Your task to perform on an android device: change notification settings in the gmail app Image 0: 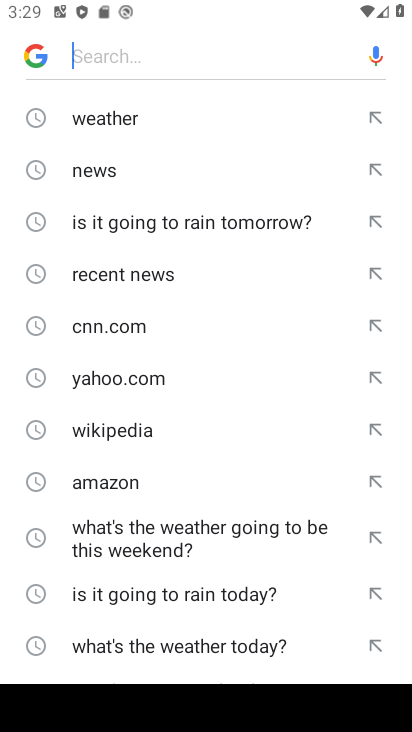
Step 0: press home button
Your task to perform on an android device: change notification settings in the gmail app Image 1: 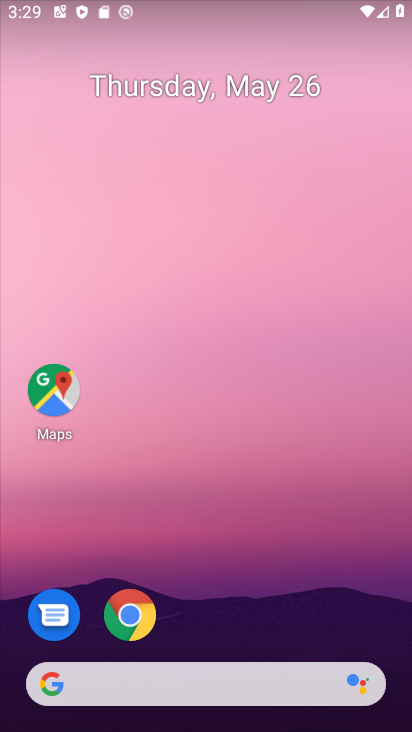
Step 1: drag from (304, 613) to (246, 94)
Your task to perform on an android device: change notification settings in the gmail app Image 2: 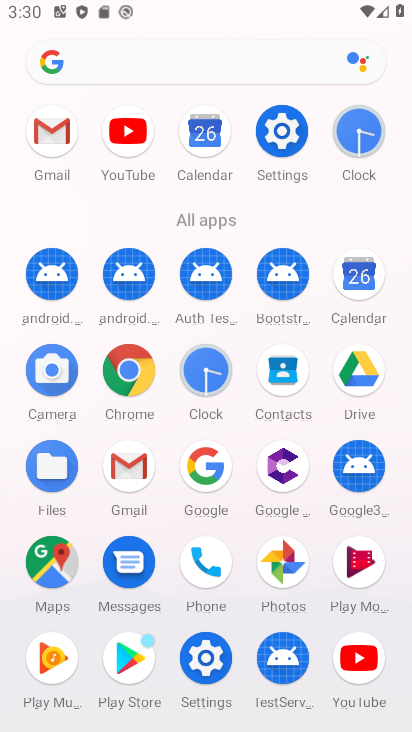
Step 2: click (129, 469)
Your task to perform on an android device: change notification settings in the gmail app Image 3: 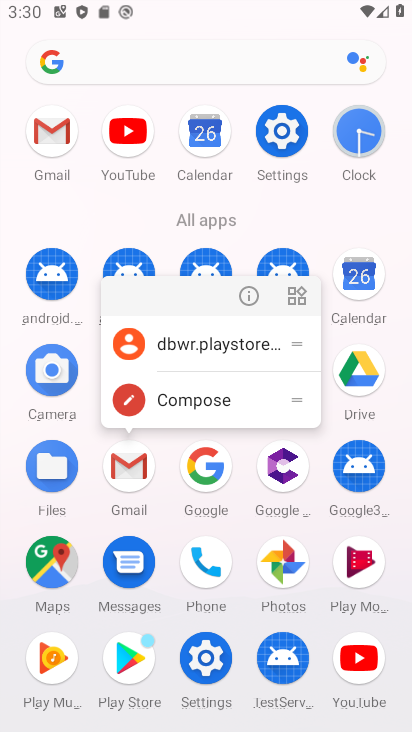
Step 3: click (246, 292)
Your task to perform on an android device: change notification settings in the gmail app Image 4: 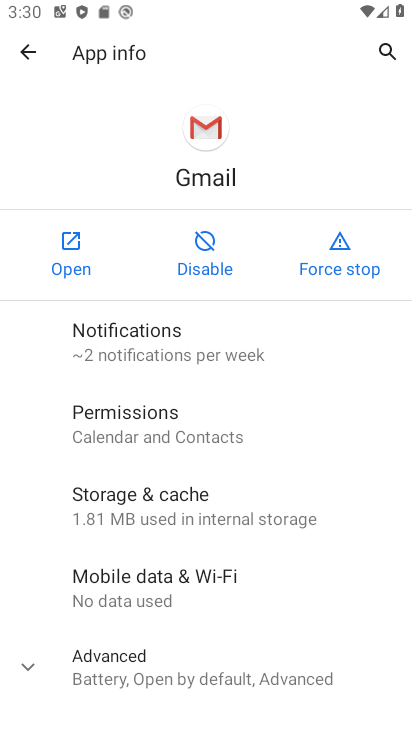
Step 4: click (221, 327)
Your task to perform on an android device: change notification settings in the gmail app Image 5: 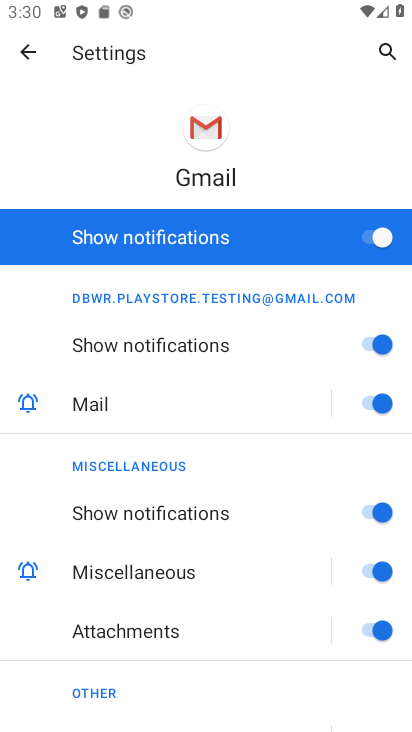
Step 5: click (382, 388)
Your task to perform on an android device: change notification settings in the gmail app Image 6: 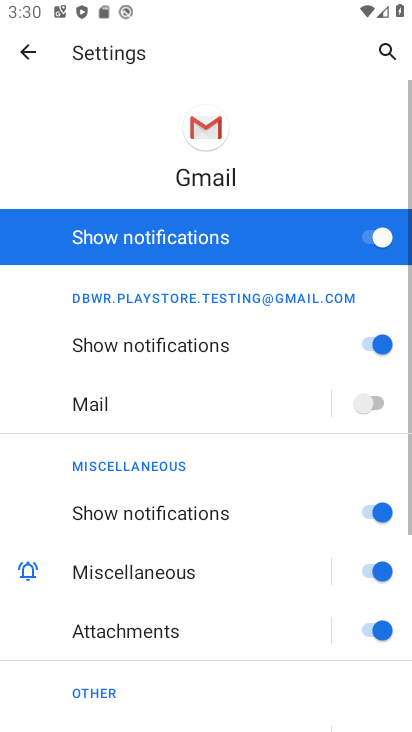
Step 6: click (385, 566)
Your task to perform on an android device: change notification settings in the gmail app Image 7: 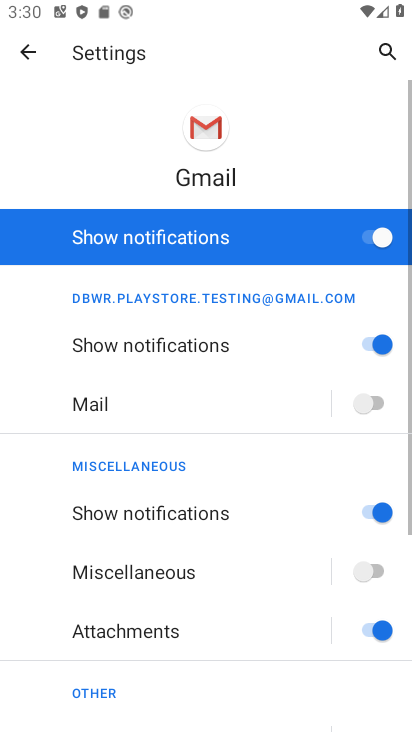
Step 7: task complete